Your task to perform on an android device: change your default location settings in chrome Image 0: 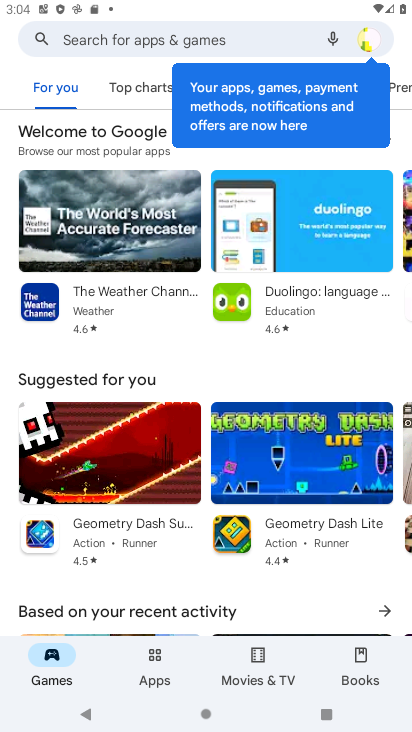
Step 0: press home button
Your task to perform on an android device: change your default location settings in chrome Image 1: 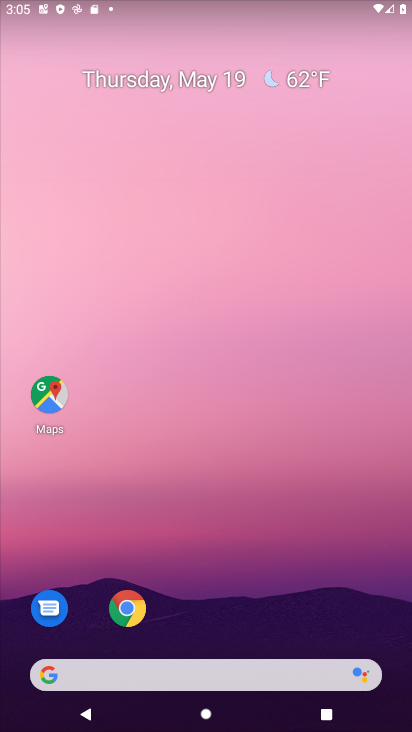
Step 1: click (138, 613)
Your task to perform on an android device: change your default location settings in chrome Image 2: 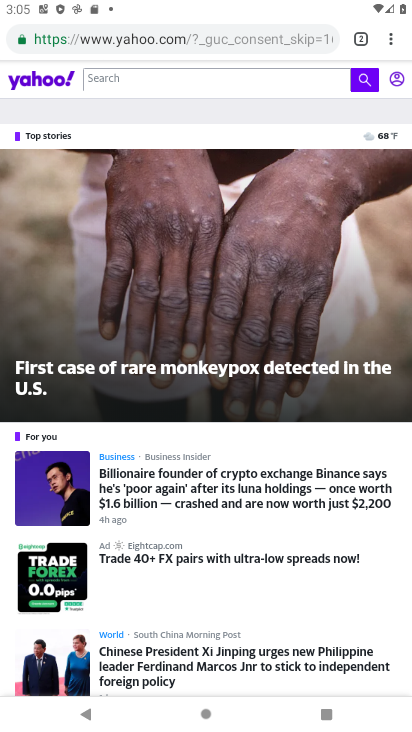
Step 2: click (402, 39)
Your task to perform on an android device: change your default location settings in chrome Image 3: 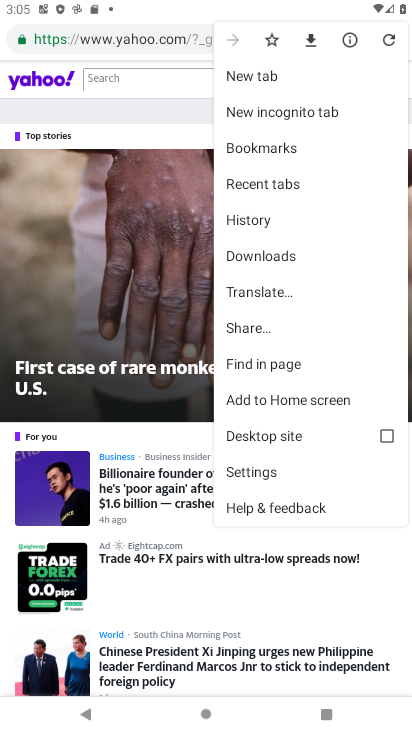
Step 3: click (276, 473)
Your task to perform on an android device: change your default location settings in chrome Image 4: 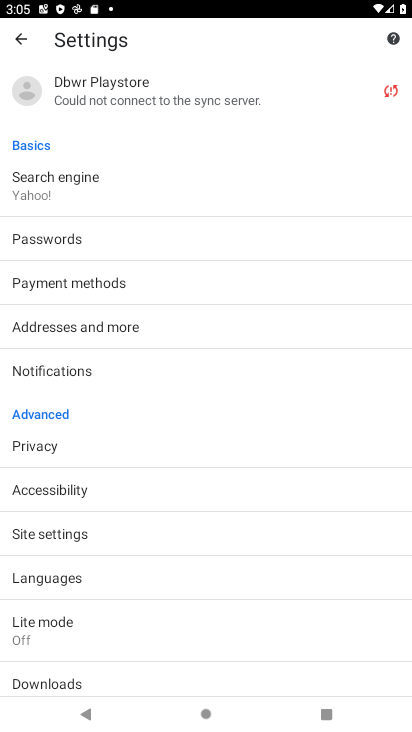
Step 4: drag from (177, 634) to (177, 563)
Your task to perform on an android device: change your default location settings in chrome Image 5: 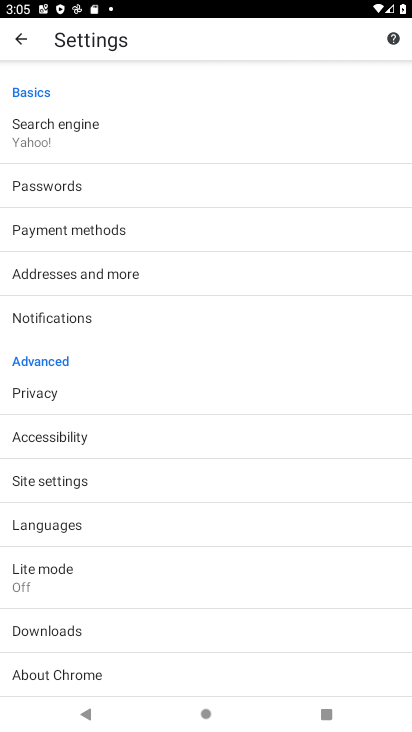
Step 5: click (248, 276)
Your task to perform on an android device: change your default location settings in chrome Image 6: 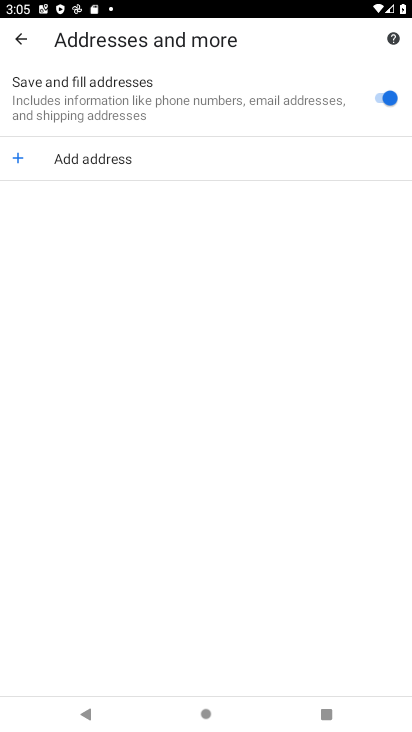
Step 6: task complete